Your task to perform on an android device: open app "Google News" (install if not already installed) Image 0: 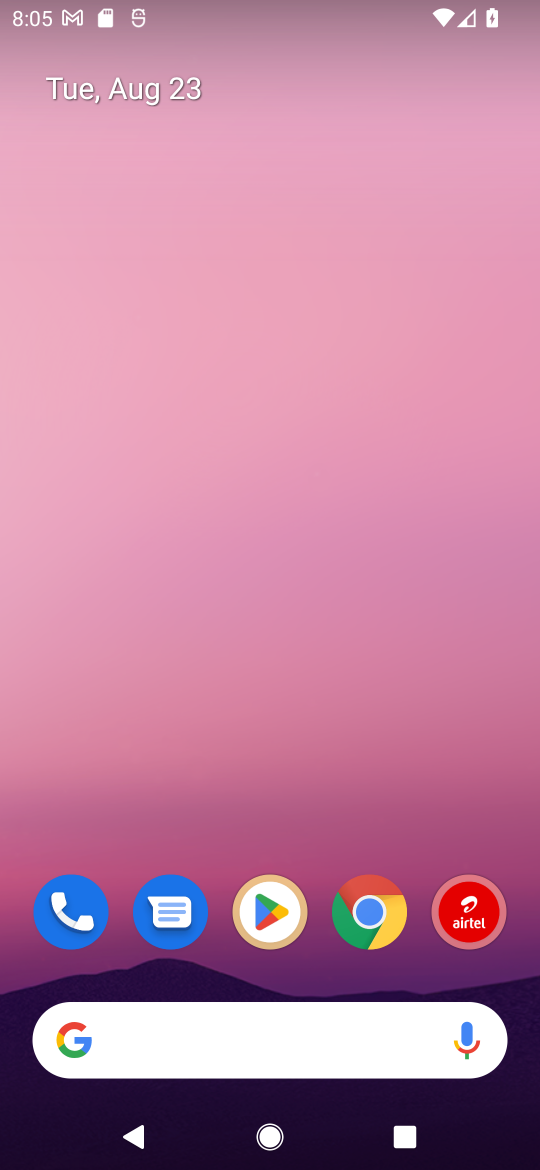
Step 0: click (254, 907)
Your task to perform on an android device: open app "Google News" (install if not already installed) Image 1: 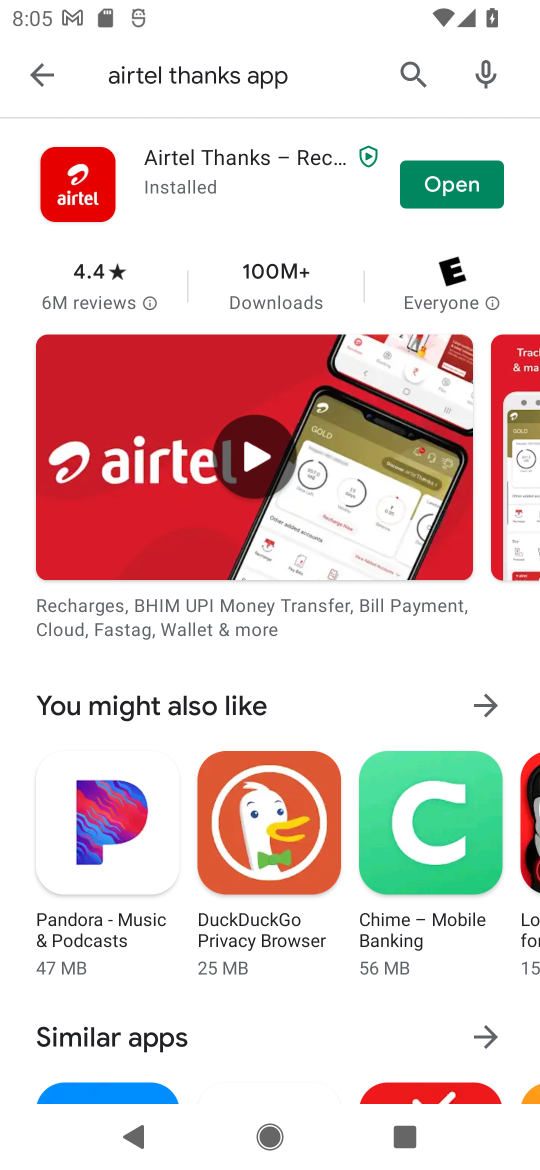
Step 1: click (409, 59)
Your task to perform on an android device: open app "Google News" (install if not already installed) Image 2: 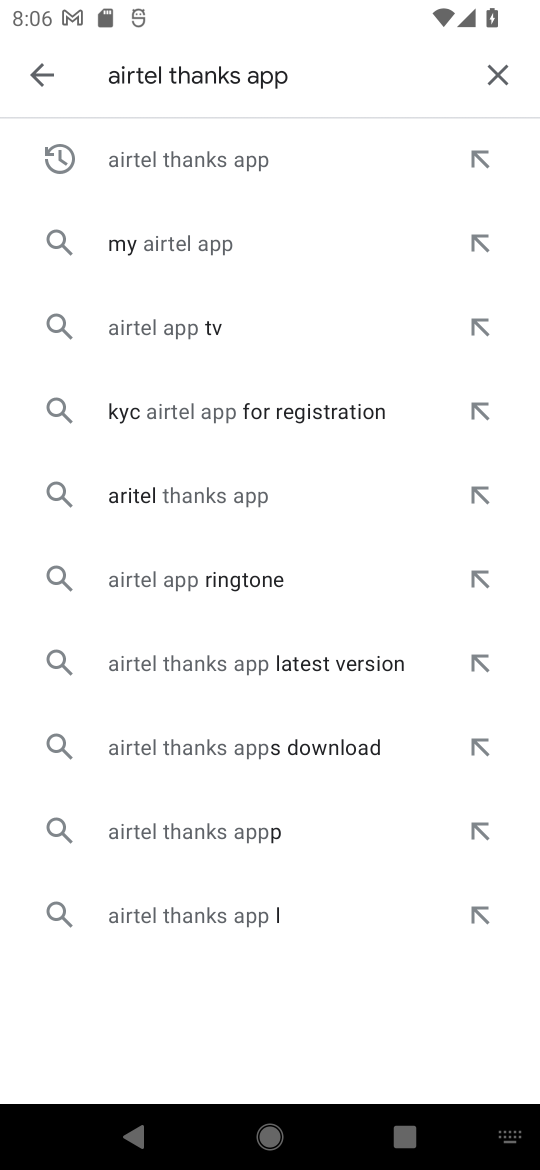
Step 2: click (491, 71)
Your task to perform on an android device: open app "Google News" (install if not already installed) Image 3: 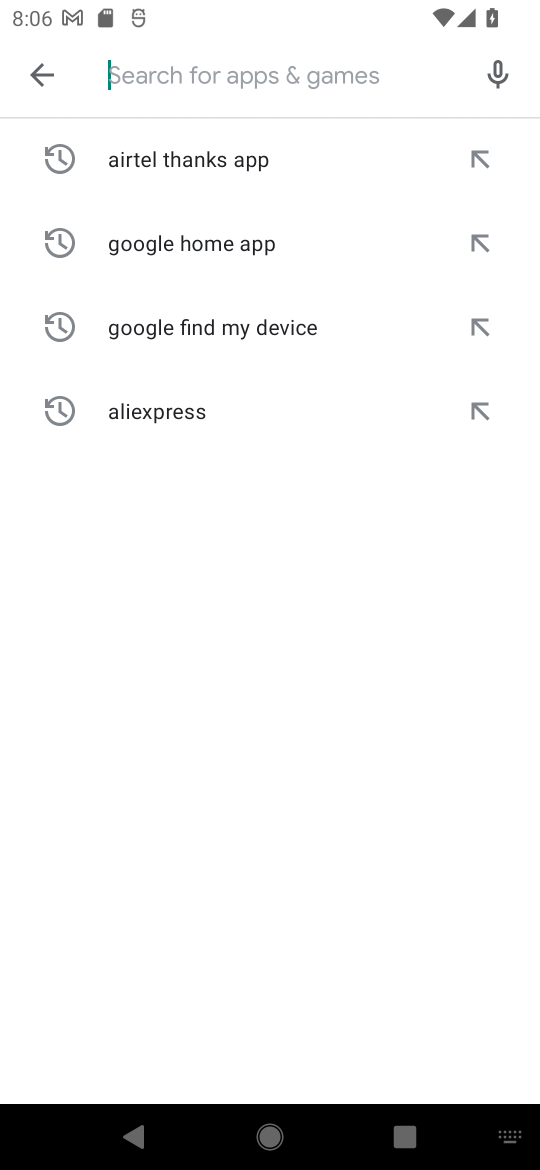
Step 3: type "Google News"
Your task to perform on an android device: open app "Google News" (install if not already installed) Image 4: 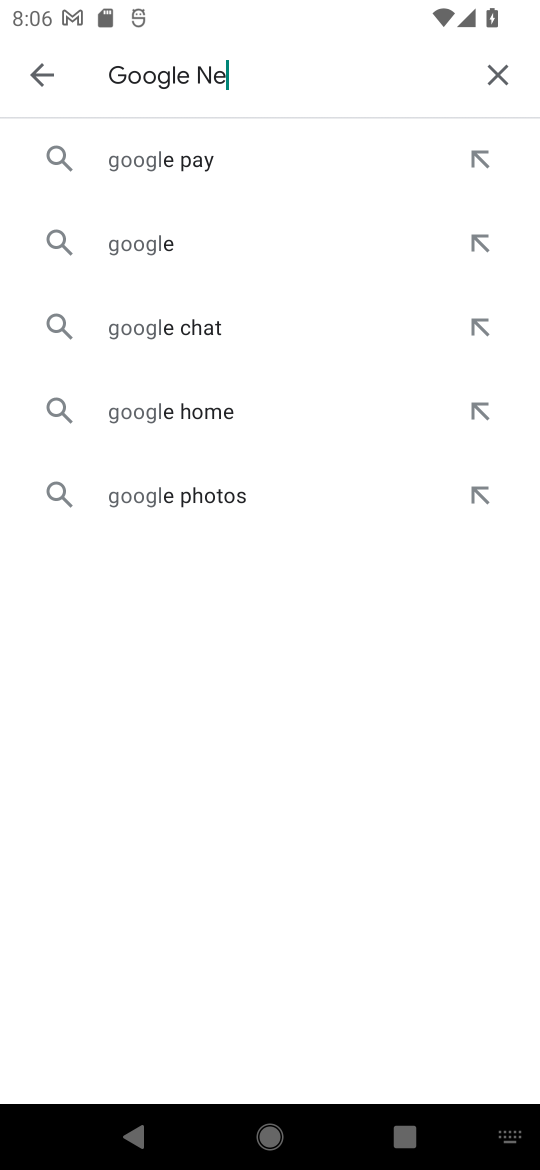
Step 4: type ""
Your task to perform on an android device: open app "Google News" (install if not already installed) Image 5: 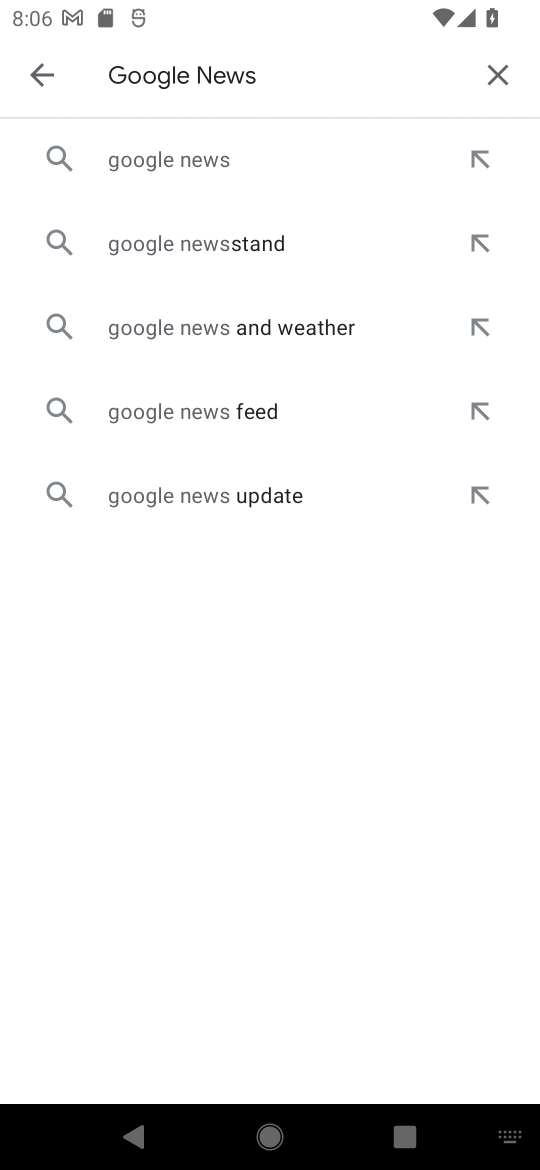
Step 5: click (184, 151)
Your task to perform on an android device: open app "Google News" (install if not already installed) Image 6: 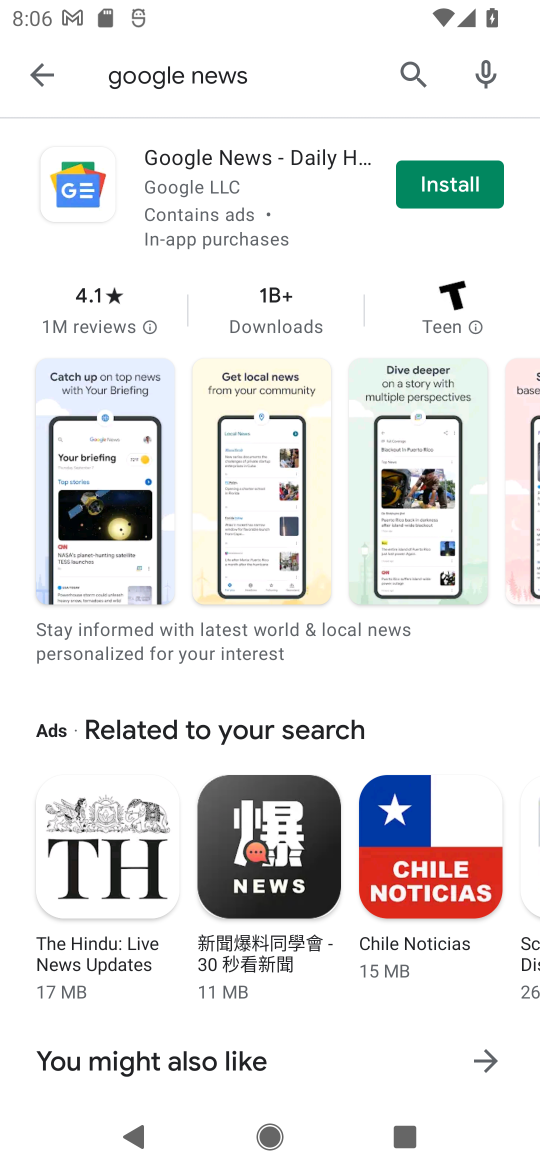
Step 6: click (437, 184)
Your task to perform on an android device: open app "Google News" (install if not already installed) Image 7: 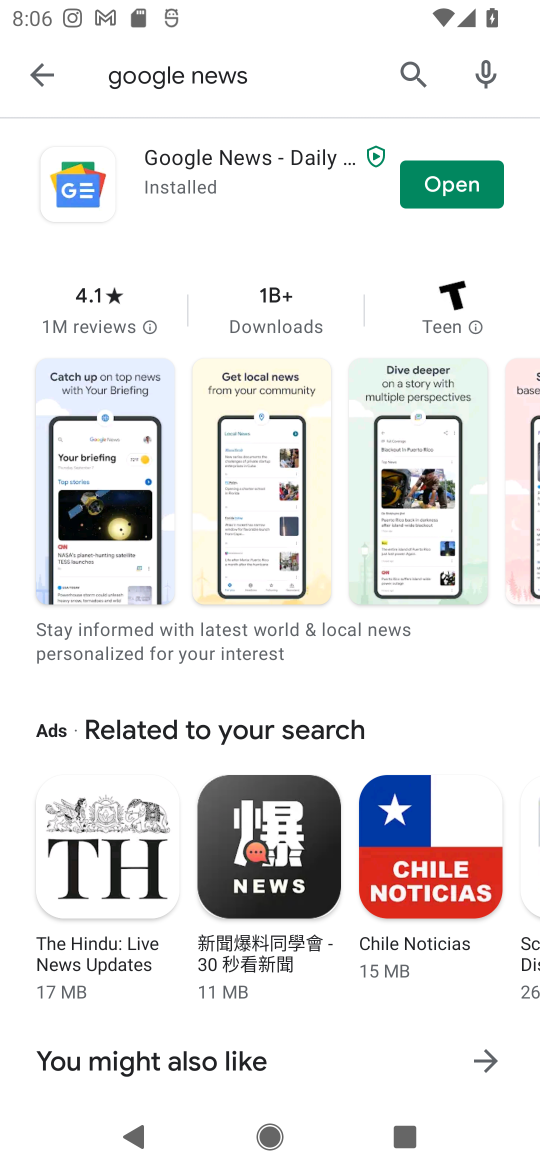
Step 7: click (461, 188)
Your task to perform on an android device: open app "Google News" (install if not already installed) Image 8: 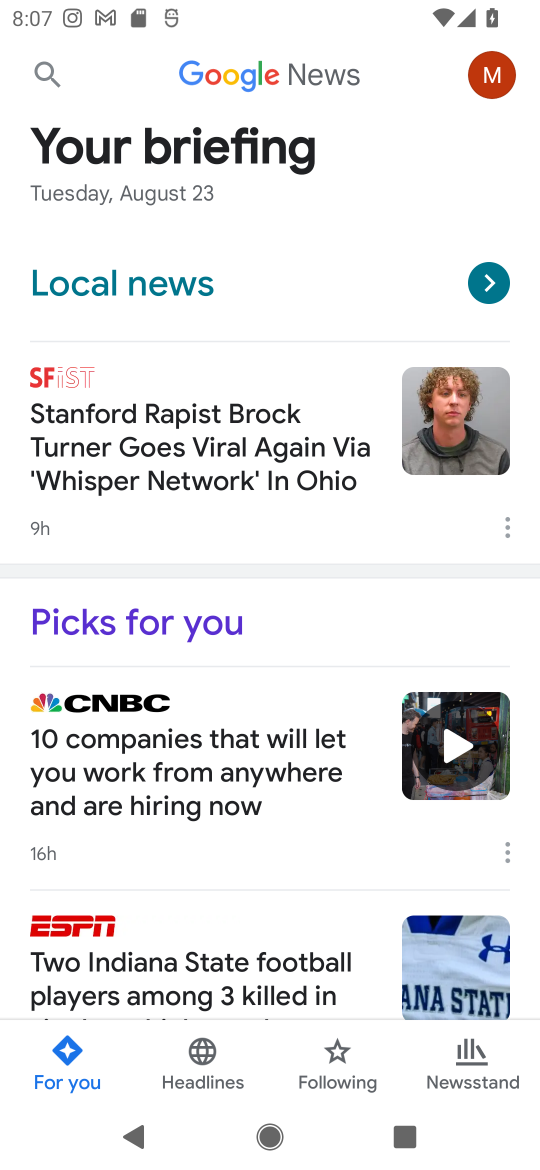
Step 8: task complete